Your task to perform on an android device: View the shopping cart on bestbuy.com. Search for dell xps on bestbuy.com, select the first entry, and add it to the cart. Image 0: 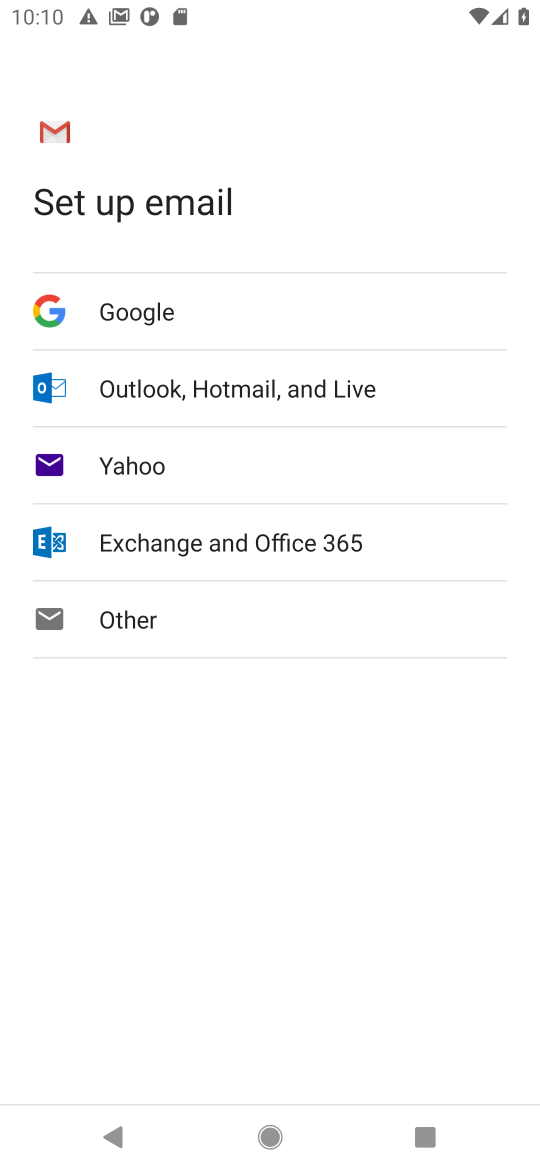
Step 0: press home button
Your task to perform on an android device: View the shopping cart on bestbuy.com. Search for dell xps on bestbuy.com, select the first entry, and add it to the cart. Image 1: 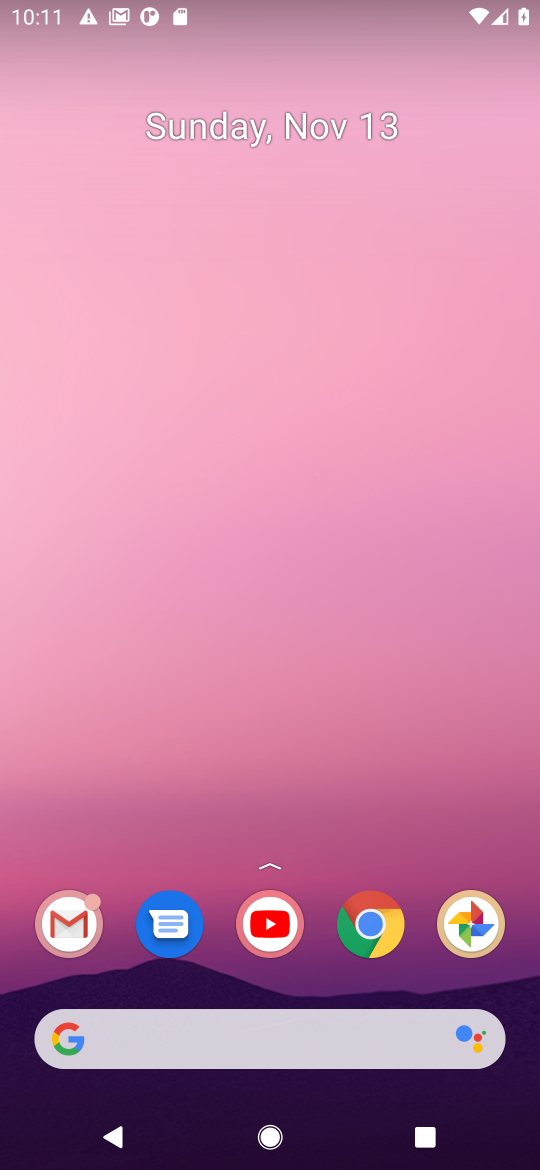
Step 1: click (370, 932)
Your task to perform on an android device: View the shopping cart on bestbuy.com. Search for dell xps on bestbuy.com, select the first entry, and add it to the cart. Image 2: 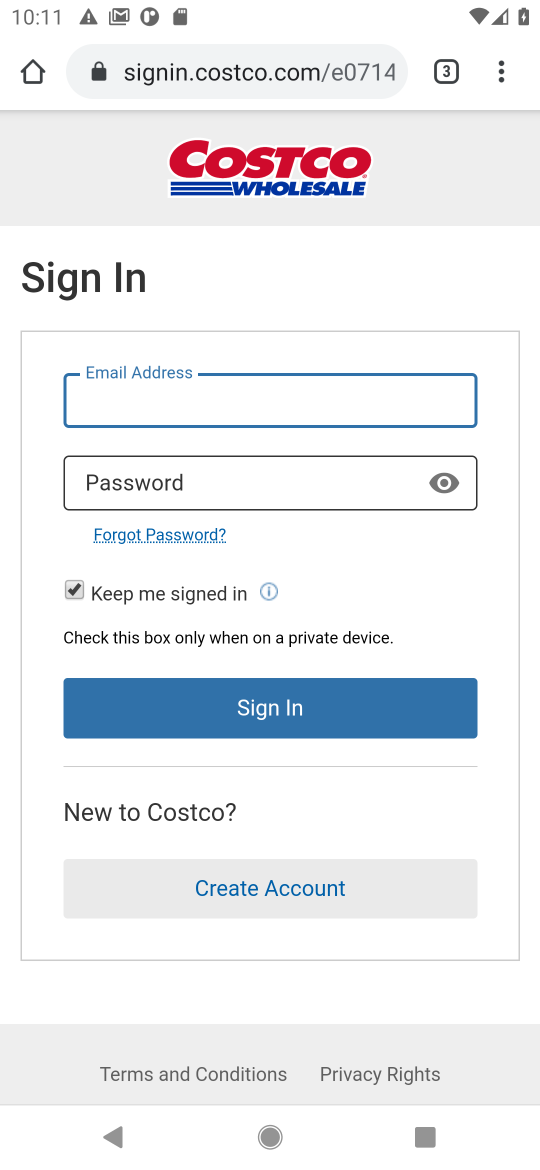
Step 2: click (274, 67)
Your task to perform on an android device: View the shopping cart on bestbuy.com. Search for dell xps on bestbuy.com, select the first entry, and add it to the cart. Image 3: 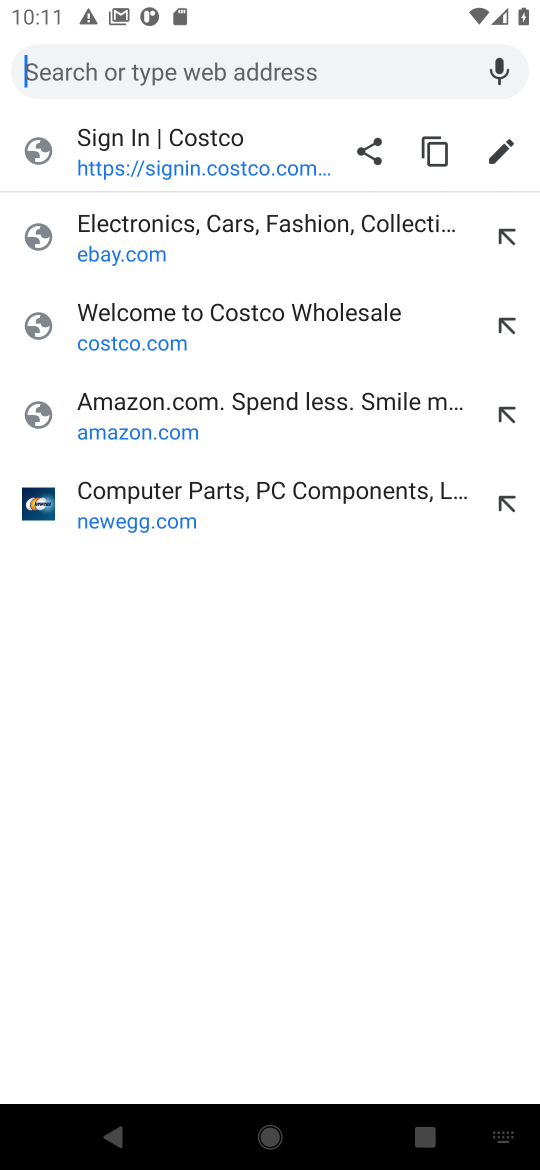
Step 3: type "bestbuy.com"
Your task to perform on an android device: View the shopping cart on bestbuy.com. Search for dell xps on bestbuy.com, select the first entry, and add it to the cart. Image 4: 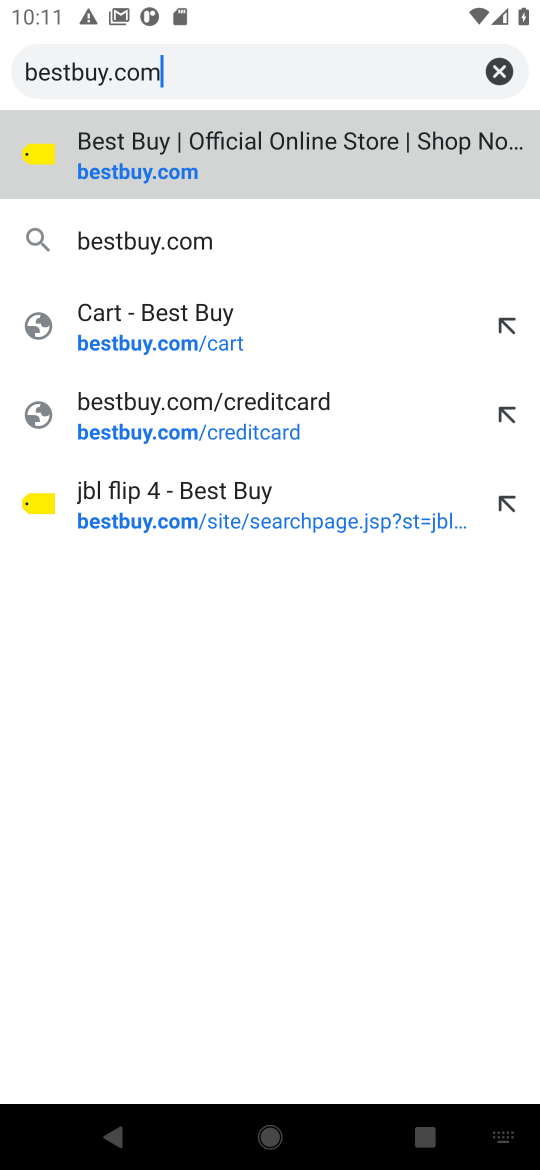
Step 4: click (118, 166)
Your task to perform on an android device: View the shopping cart on bestbuy.com. Search for dell xps on bestbuy.com, select the first entry, and add it to the cart. Image 5: 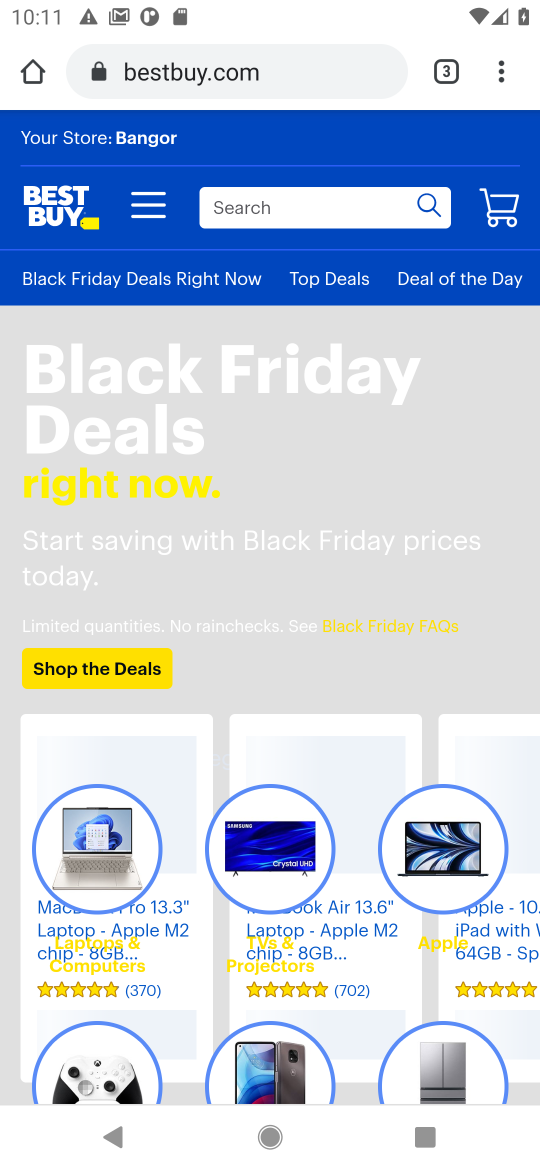
Step 5: click (497, 214)
Your task to perform on an android device: View the shopping cart on bestbuy.com. Search for dell xps on bestbuy.com, select the first entry, and add it to the cart. Image 6: 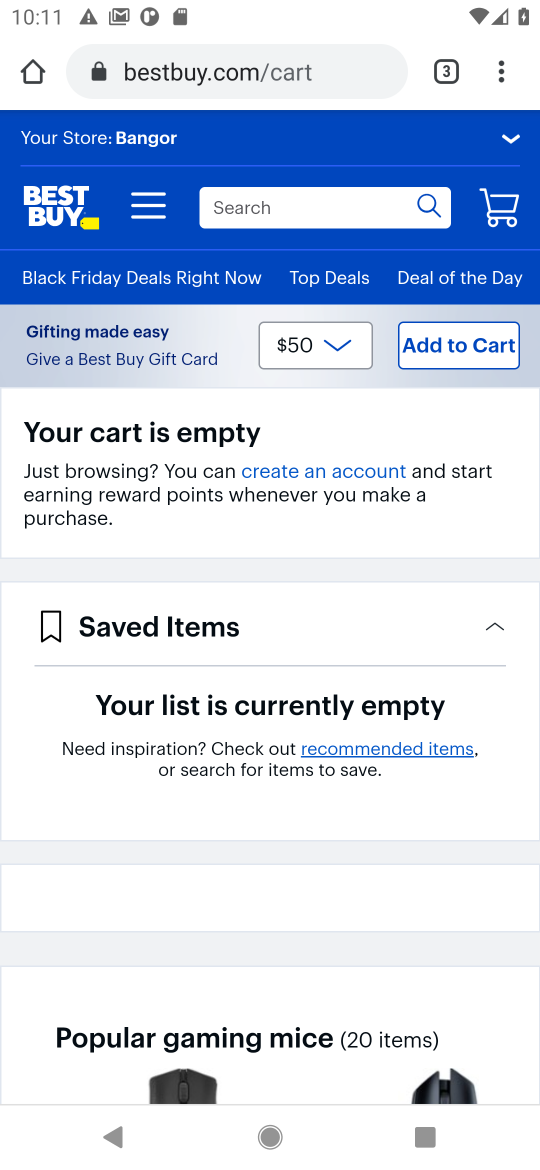
Step 6: click (277, 220)
Your task to perform on an android device: View the shopping cart on bestbuy.com. Search for dell xps on bestbuy.com, select the first entry, and add it to the cart. Image 7: 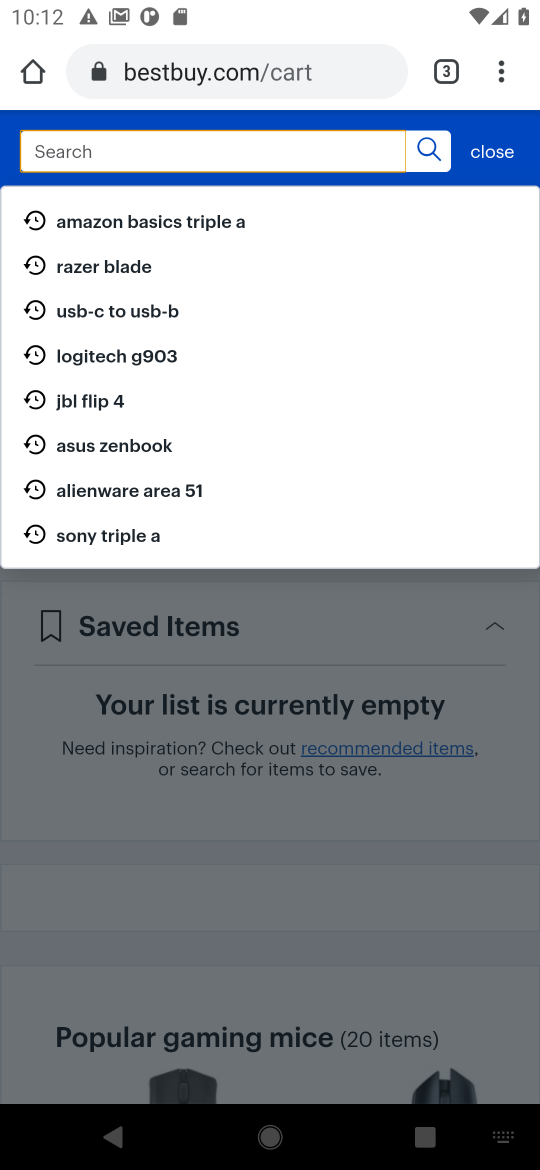
Step 7: type "dell xps"
Your task to perform on an android device: View the shopping cart on bestbuy.com. Search for dell xps on bestbuy.com, select the first entry, and add it to the cart. Image 8: 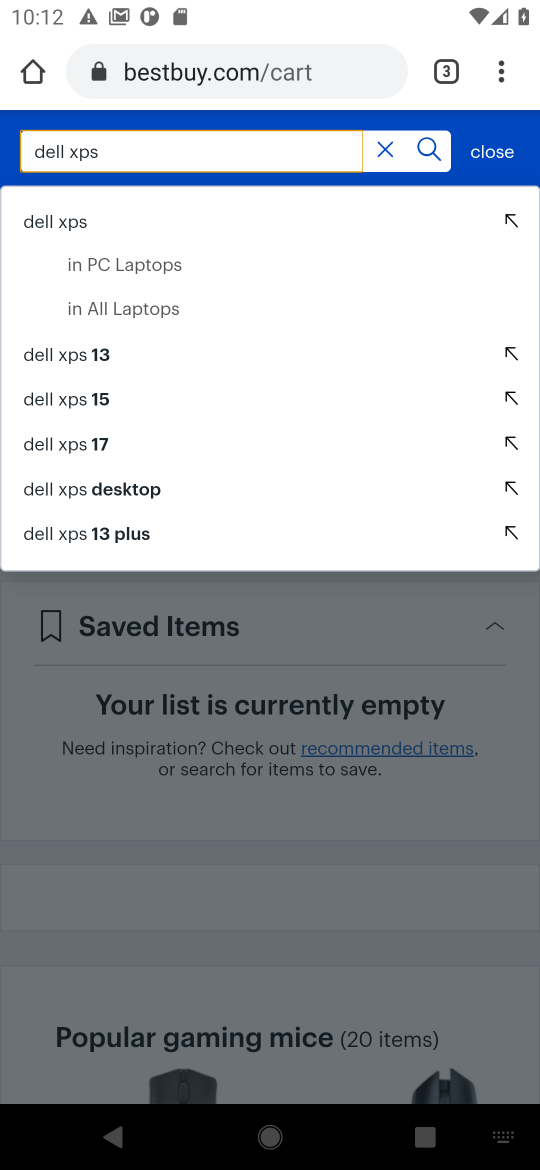
Step 8: click (65, 237)
Your task to perform on an android device: View the shopping cart on bestbuy.com. Search for dell xps on bestbuy.com, select the first entry, and add it to the cart. Image 9: 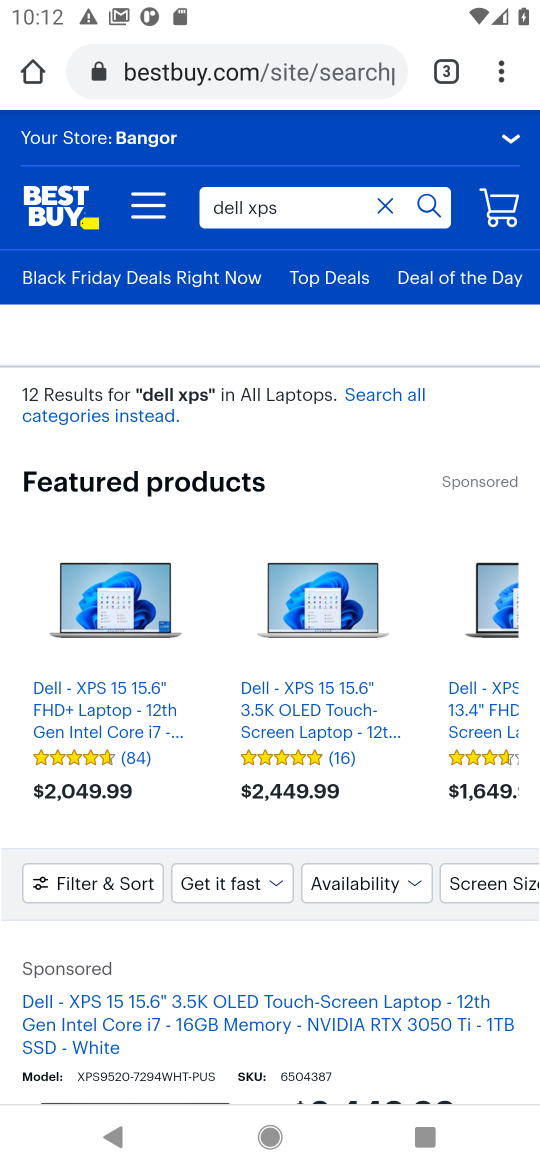
Step 9: drag from (193, 779) to (193, 451)
Your task to perform on an android device: View the shopping cart on bestbuy.com. Search for dell xps on bestbuy.com, select the first entry, and add it to the cart. Image 10: 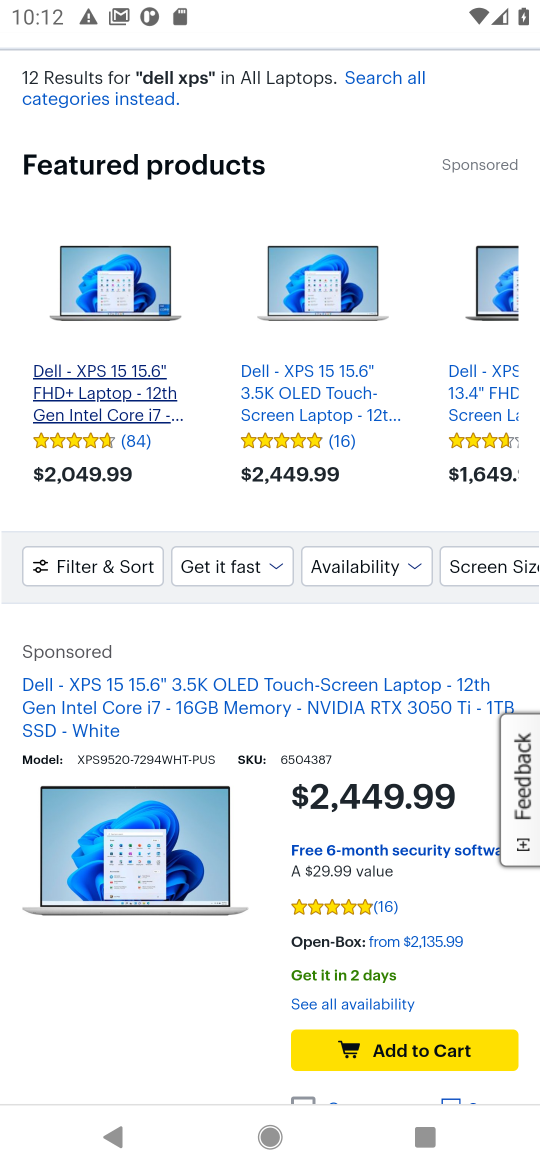
Step 10: drag from (189, 935) to (172, 711)
Your task to perform on an android device: View the shopping cart on bestbuy.com. Search for dell xps on bestbuy.com, select the first entry, and add it to the cart. Image 11: 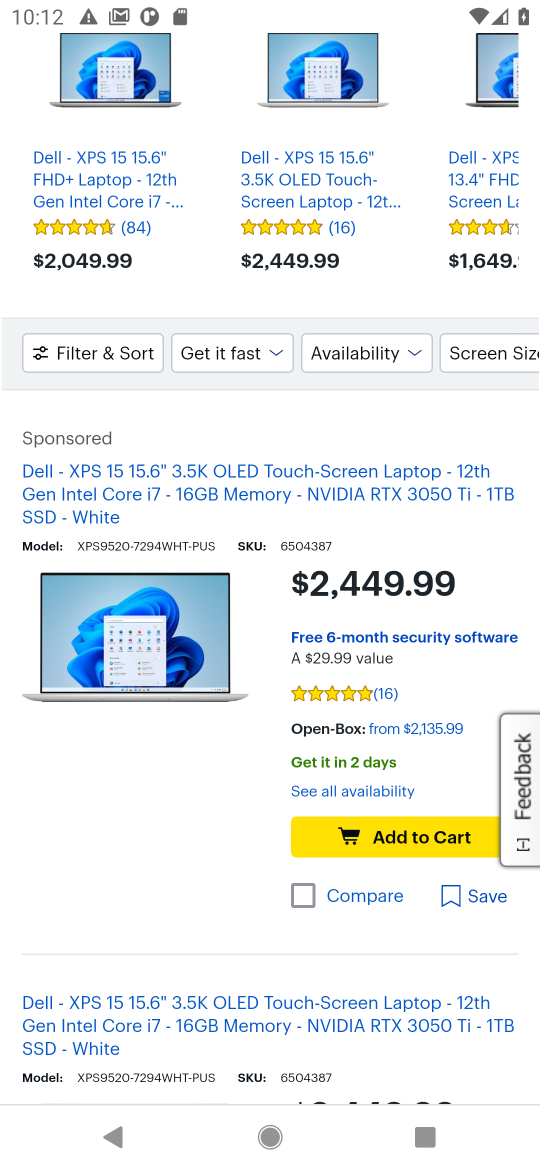
Step 11: click (418, 842)
Your task to perform on an android device: View the shopping cart on bestbuy.com. Search for dell xps on bestbuy.com, select the first entry, and add it to the cart. Image 12: 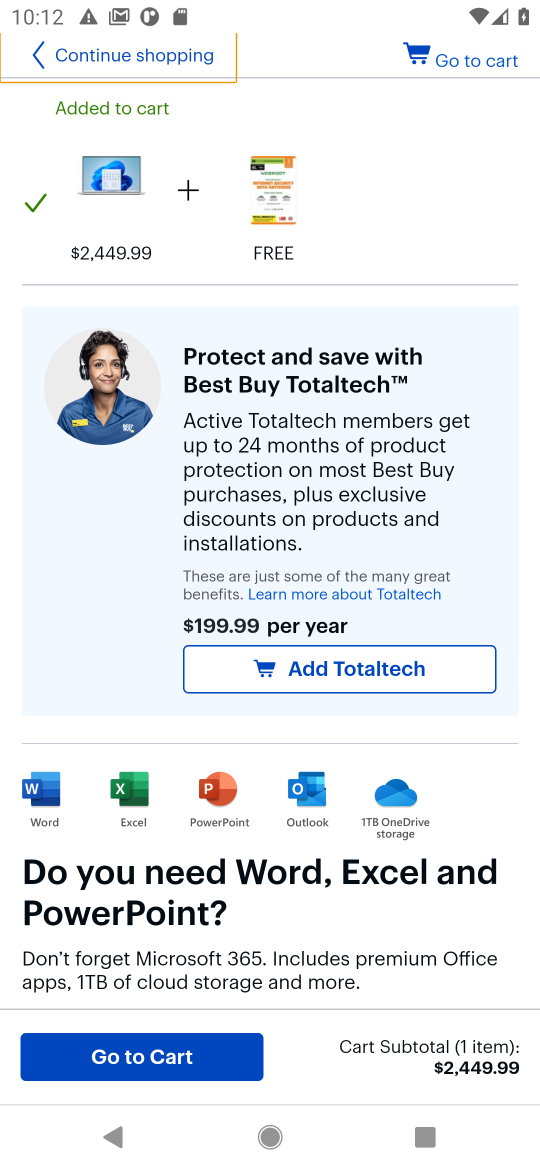
Step 12: task complete